Your task to perform on an android device: Open calendar and show me the second week of next month Image 0: 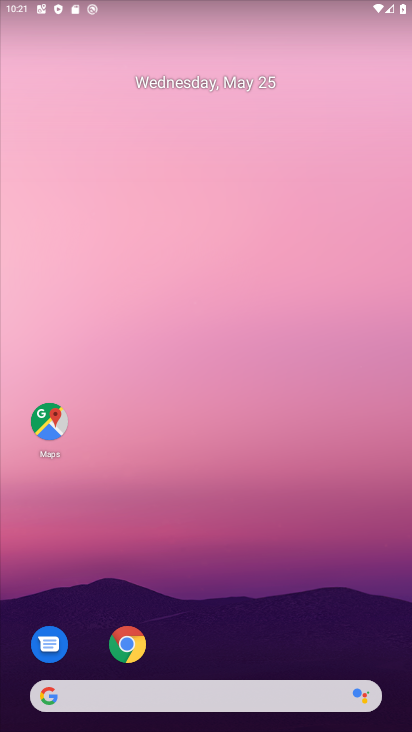
Step 0: drag from (263, 531) to (171, 150)
Your task to perform on an android device: Open calendar and show me the second week of next month Image 1: 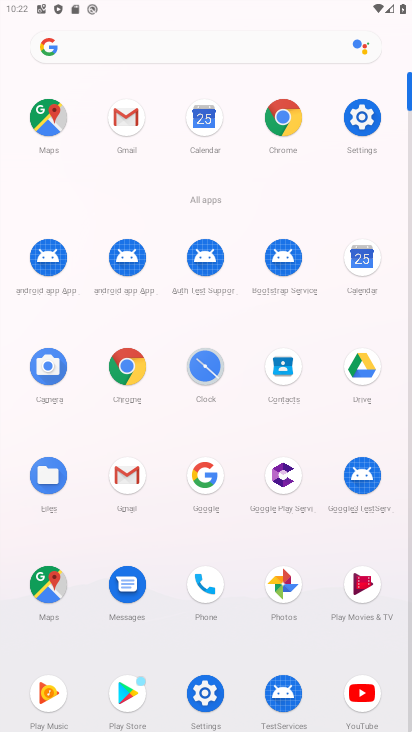
Step 1: click (357, 252)
Your task to perform on an android device: Open calendar and show me the second week of next month Image 2: 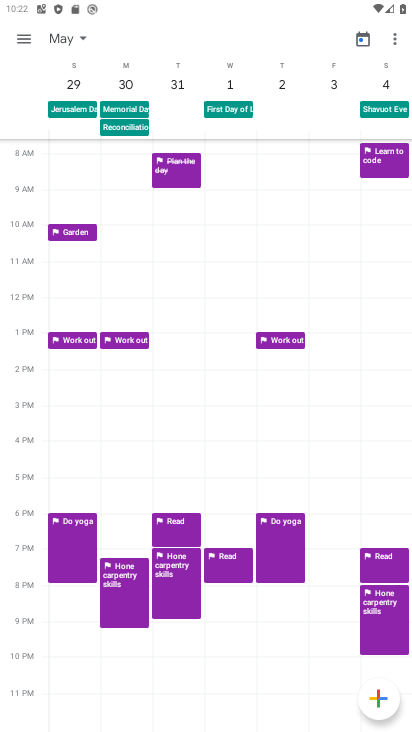
Step 2: click (84, 35)
Your task to perform on an android device: Open calendar and show me the second week of next month Image 3: 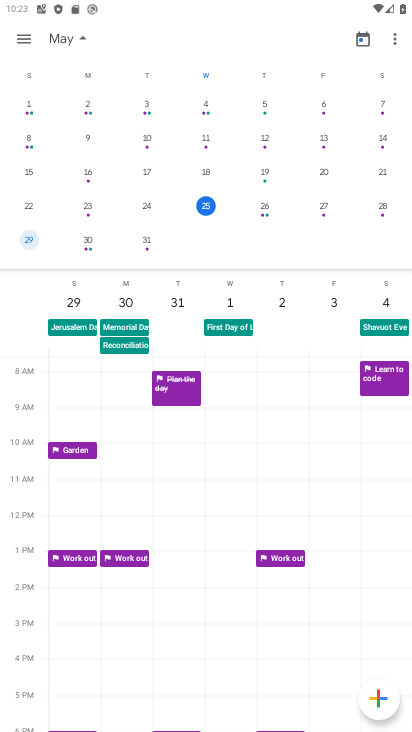
Step 3: click (80, 40)
Your task to perform on an android device: Open calendar and show me the second week of next month Image 4: 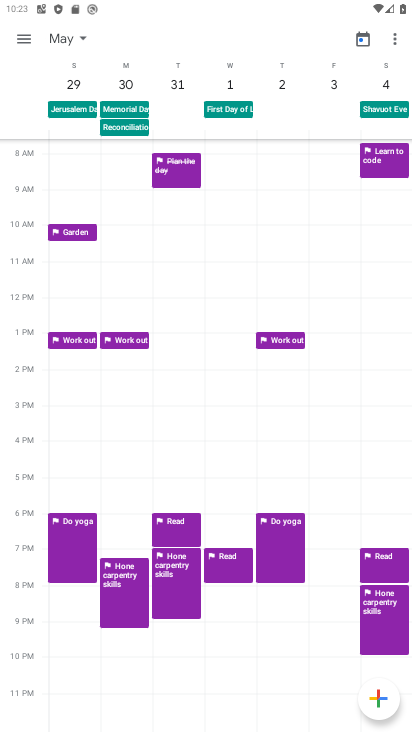
Step 4: click (82, 37)
Your task to perform on an android device: Open calendar and show me the second week of next month Image 5: 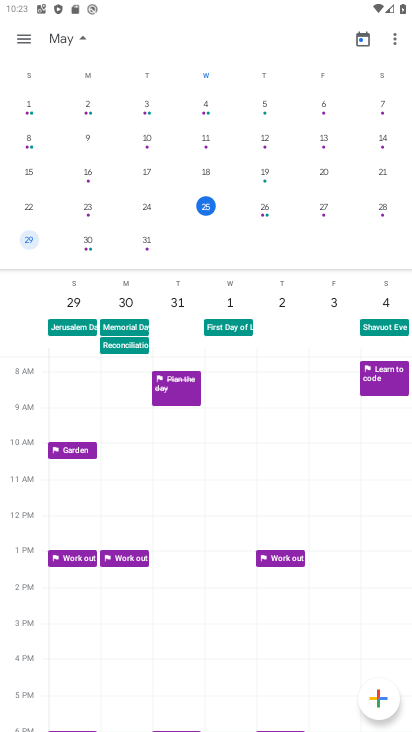
Step 5: drag from (319, 159) to (18, 147)
Your task to perform on an android device: Open calendar and show me the second week of next month Image 6: 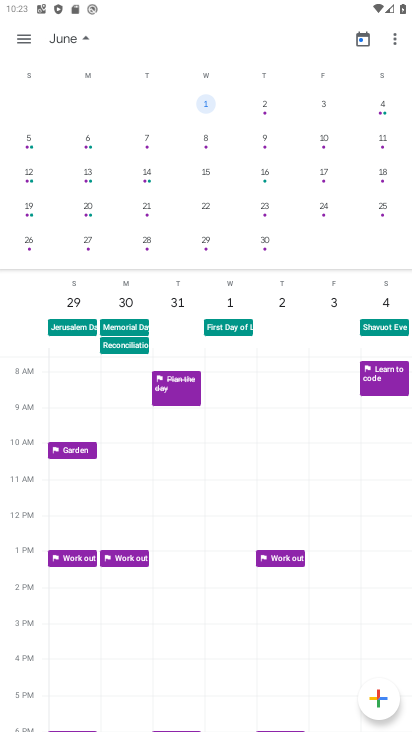
Step 6: click (204, 137)
Your task to perform on an android device: Open calendar and show me the second week of next month Image 7: 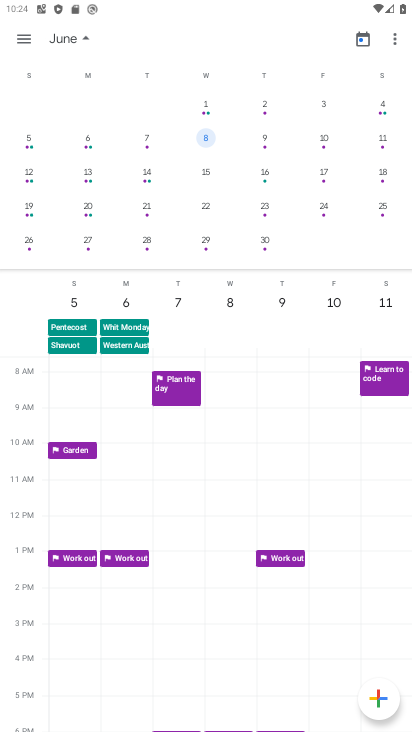
Step 7: task complete